Your task to perform on an android device: What's the weather going to be this weekend? Image 0: 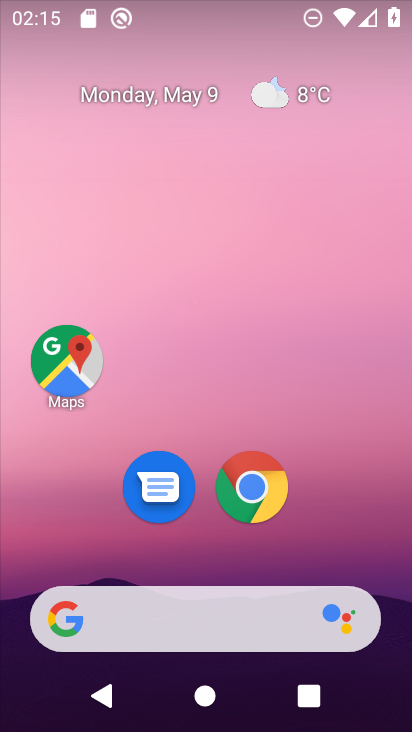
Step 0: drag from (372, 564) to (329, 411)
Your task to perform on an android device: What's the weather going to be this weekend? Image 1: 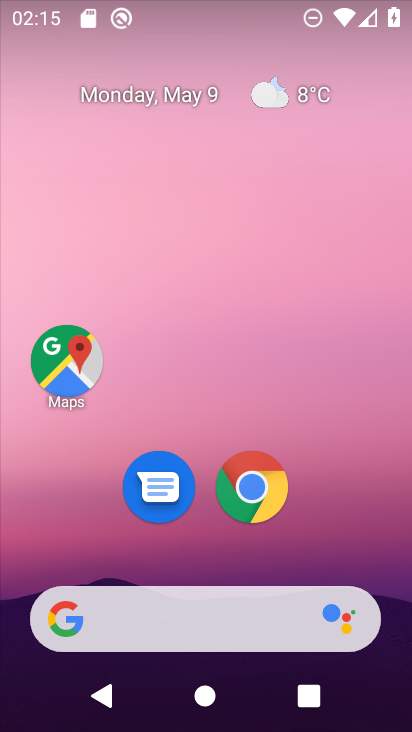
Step 1: click (283, 89)
Your task to perform on an android device: What's the weather going to be this weekend? Image 2: 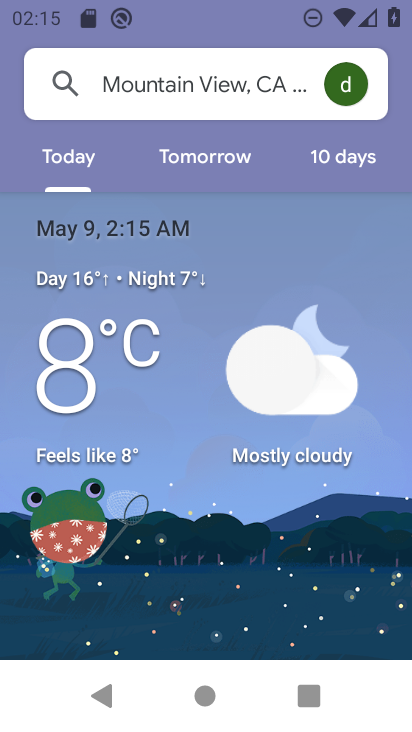
Step 2: click (357, 164)
Your task to perform on an android device: What's the weather going to be this weekend? Image 3: 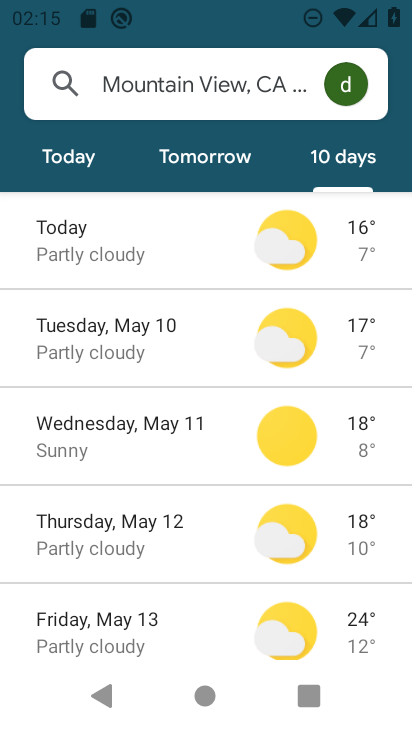
Step 3: task complete